Your task to perform on an android device: turn smart compose on in the gmail app Image 0: 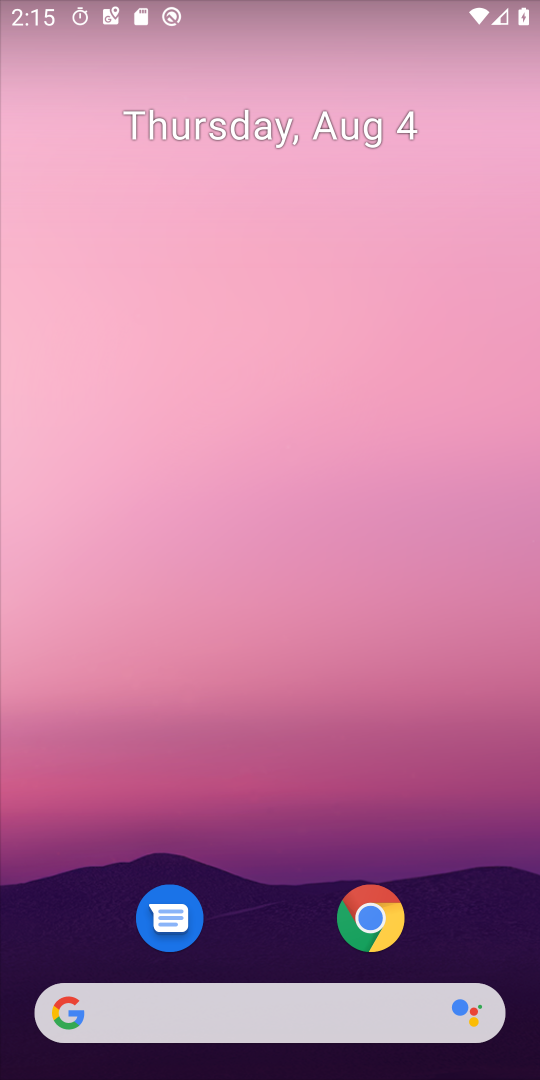
Step 0: drag from (273, 941) to (277, 391)
Your task to perform on an android device: turn smart compose on in the gmail app Image 1: 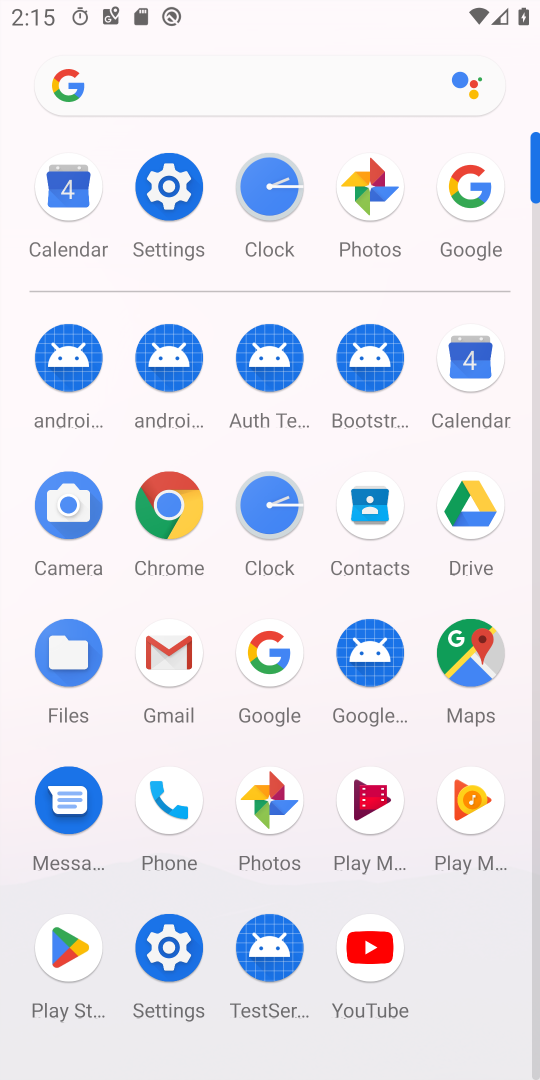
Step 1: click (175, 679)
Your task to perform on an android device: turn smart compose on in the gmail app Image 2: 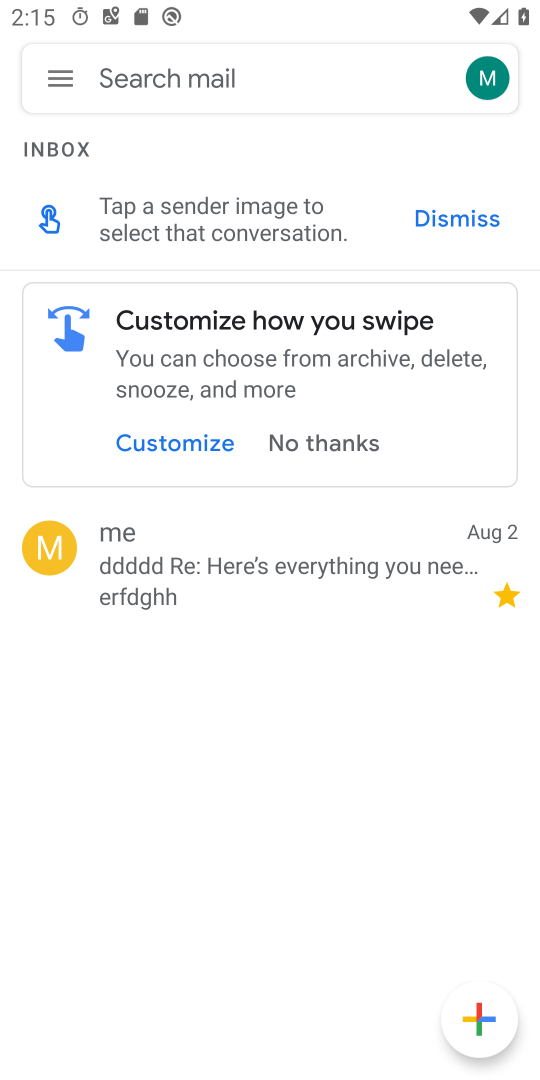
Step 2: click (61, 88)
Your task to perform on an android device: turn smart compose on in the gmail app Image 3: 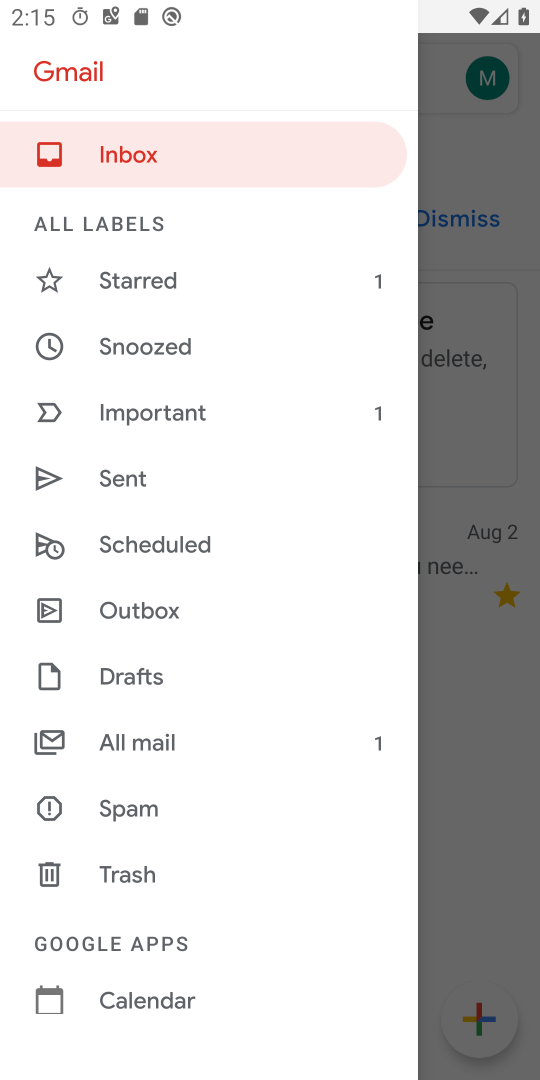
Step 3: drag from (180, 947) to (267, 473)
Your task to perform on an android device: turn smart compose on in the gmail app Image 4: 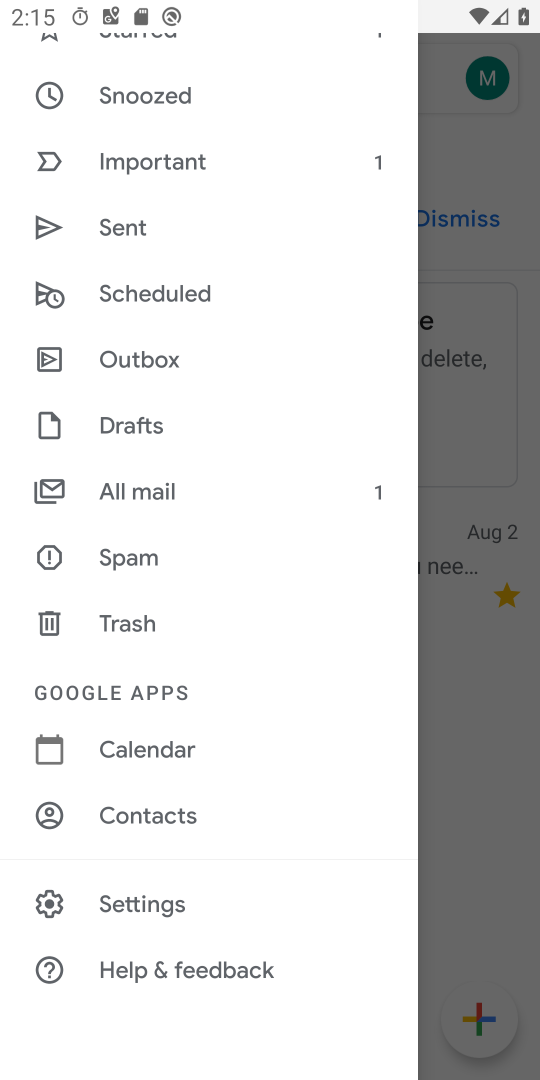
Step 4: click (159, 894)
Your task to perform on an android device: turn smart compose on in the gmail app Image 5: 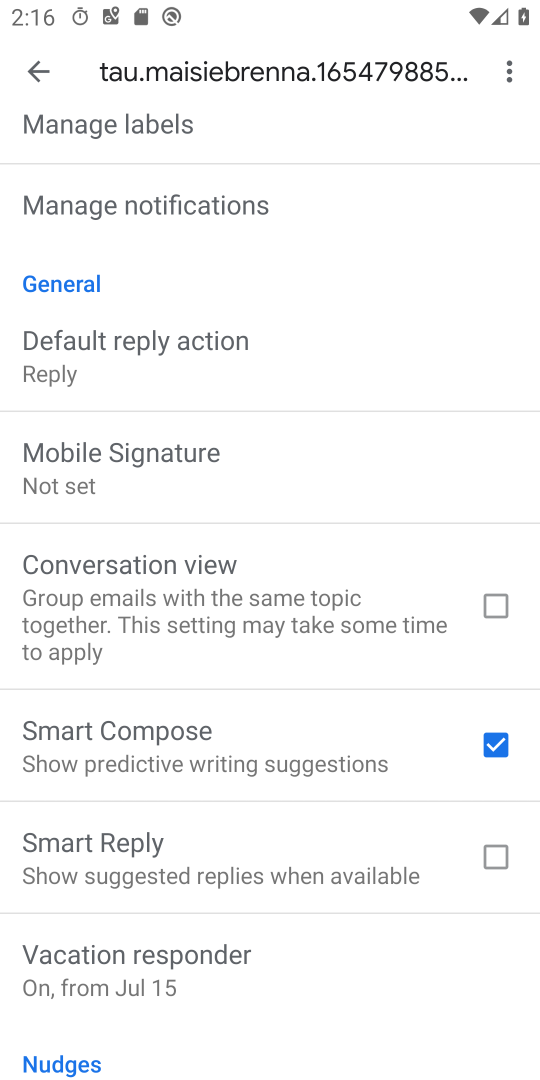
Step 5: task complete